Your task to perform on an android device: add a contact in the contacts app Image 0: 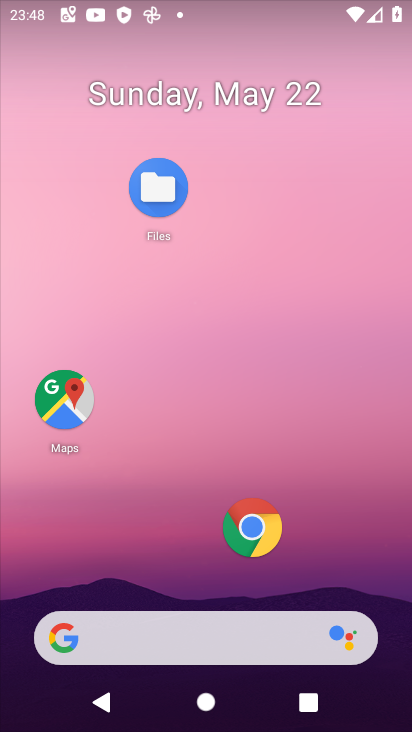
Step 0: drag from (330, 514) to (255, 11)
Your task to perform on an android device: add a contact in the contacts app Image 1: 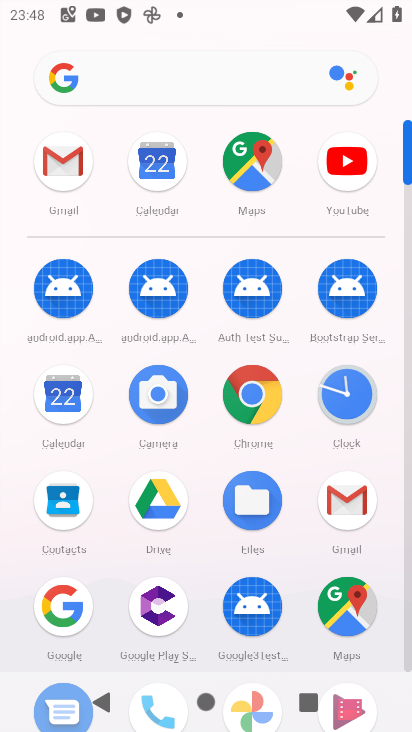
Step 1: click (67, 497)
Your task to perform on an android device: add a contact in the contacts app Image 2: 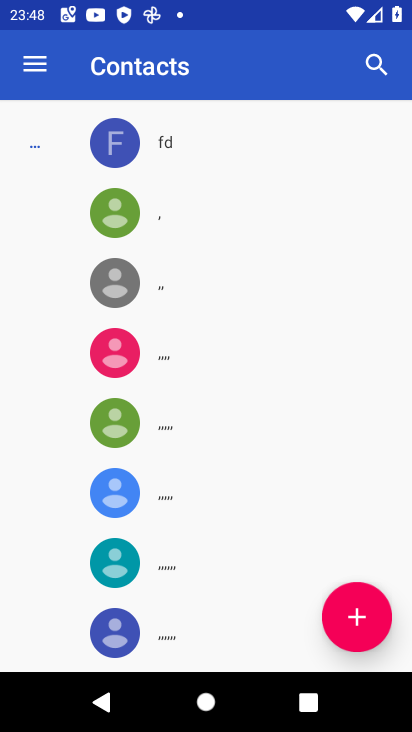
Step 2: click (363, 620)
Your task to perform on an android device: add a contact in the contacts app Image 3: 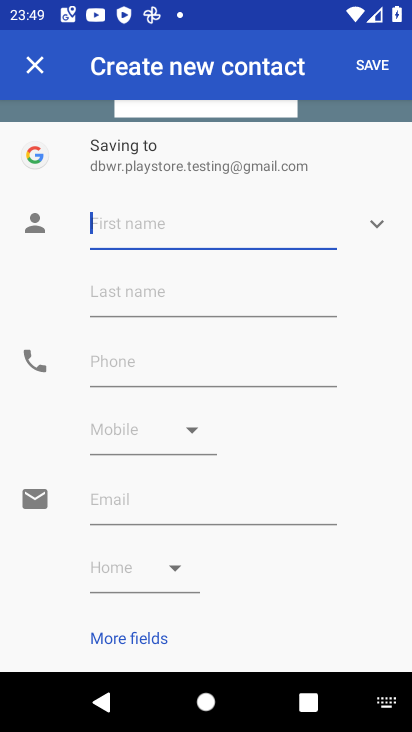
Step 3: click (204, 212)
Your task to perform on an android device: add a contact in the contacts app Image 4: 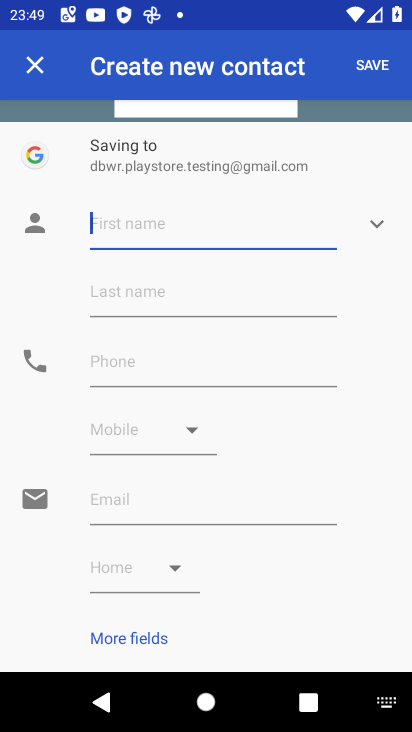
Step 4: type "drcftvgybhu"
Your task to perform on an android device: add a contact in the contacts app Image 5: 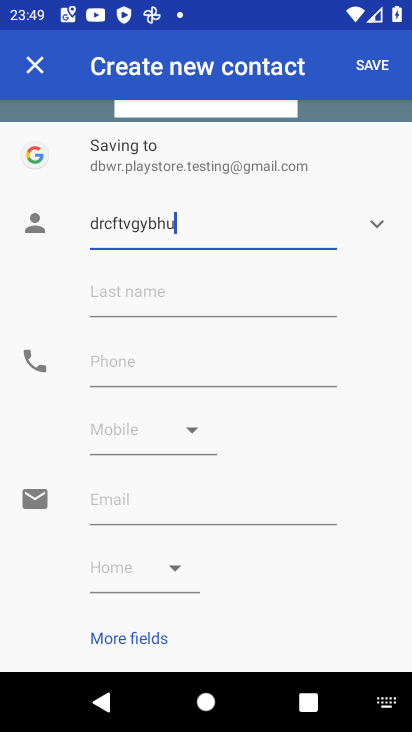
Step 5: click (111, 362)
Your task to perform on an android device: add a contact in the contacts app Image 6: 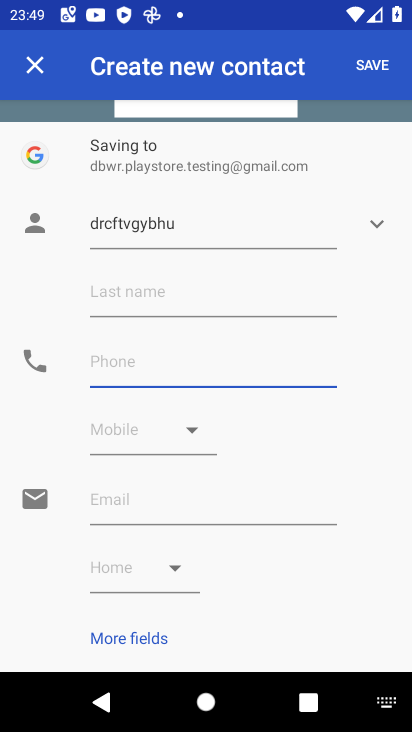
Step 6: type "55555"
Your task to perform on an android device: add a contact in the contacts app Image 7: 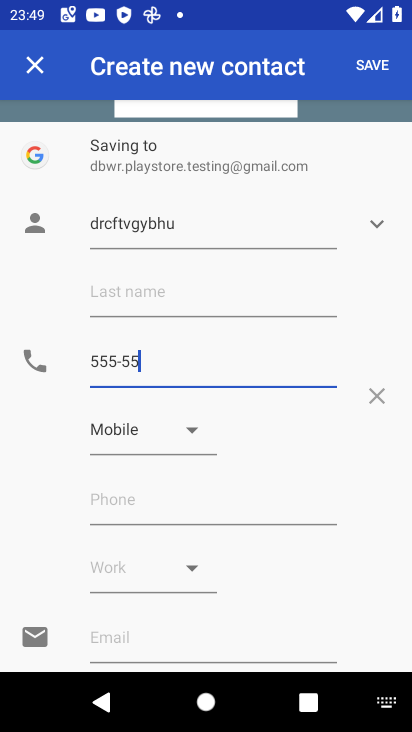
Step 7: click (376, 62)
Your task to perform on an android device: add a contact in the contacts app Image 8: 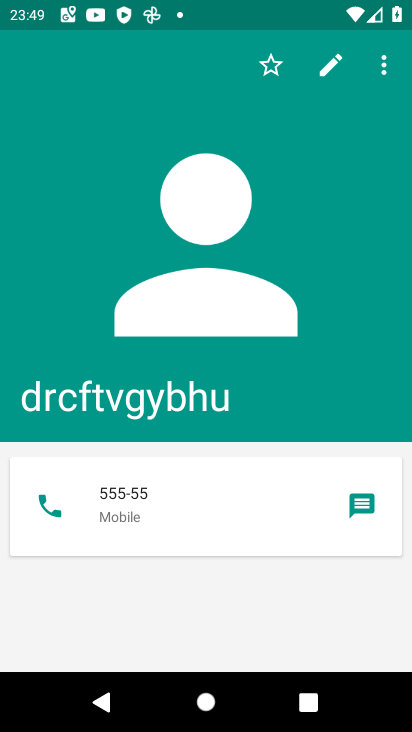
Step 8: task complete